Your task to perform on an android device: open the mobile data screen to see how much data has been used Image 0: 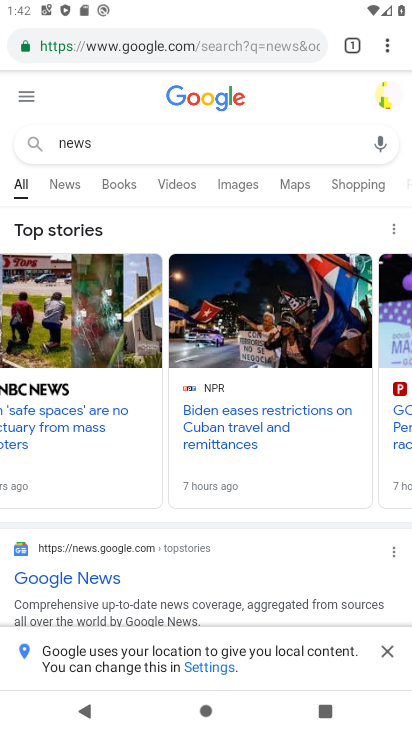
Step 0: press home button
Your task to perform on an android device: open the mobile data screen to see how much data has been used Image 1: 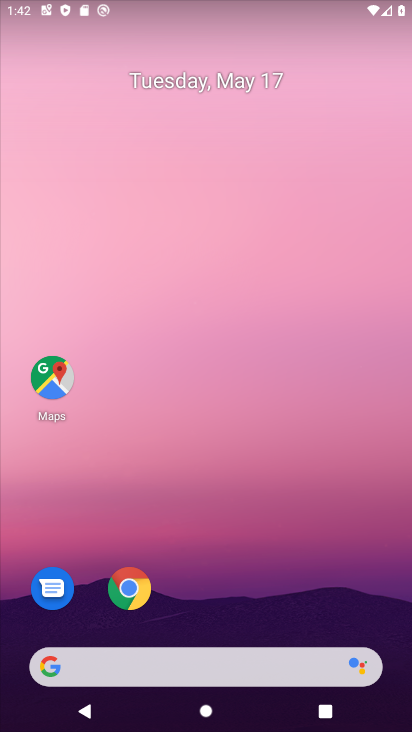
Step 1: drag from (159, 596) to (48, 93)
Your task to perform on an android device: open the mobile data screen to see how much data has been used Image 2: 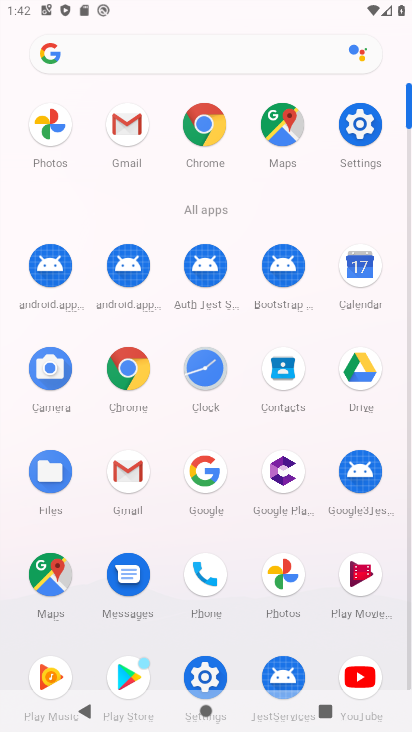
Step 2: click (374, 136)
Your task to perform on an android device: open the mobile data screen to see how much data has been used Image 3: 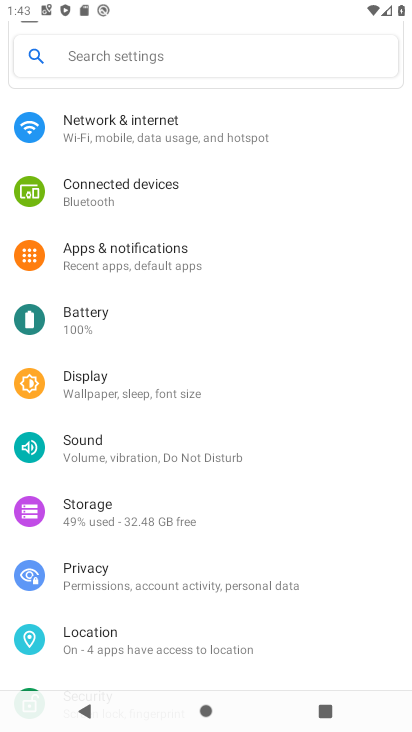
Step 3: click (175, 130)
Your task to perform on an android device: open the mobile data screen to see how much data has been used Image 4: 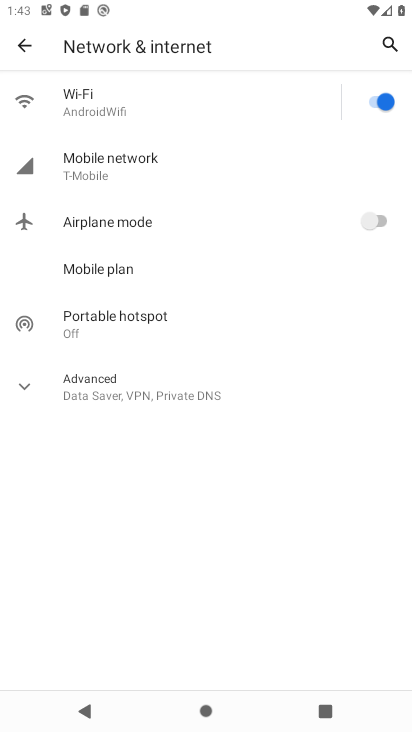
Step 4: click (83, 163)
Your task to perform on an android device: open the mobile data screen to see how much data has been used Image 5: 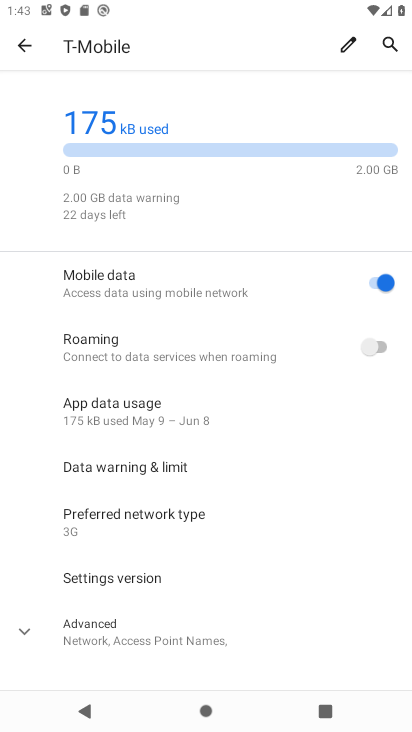
Step 5: task complete